Your task to perform on an android device: Go to Yahoo.com Image 0: 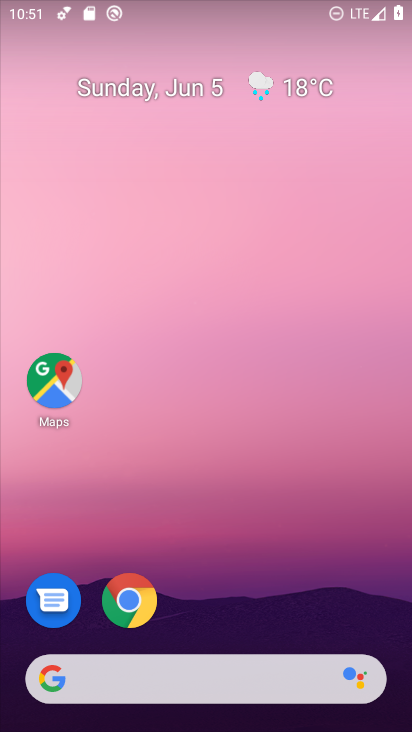
Step 0: click (134, 605)
Your task to perform on an android device: Go to Yahoo.com Image 1: 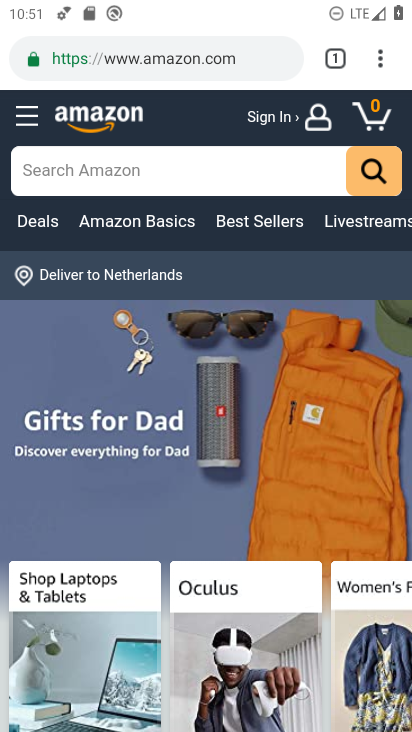
Step 1: click (335, 60)
Your task to perform on an android device: Go to Yahoo.com Image 2: 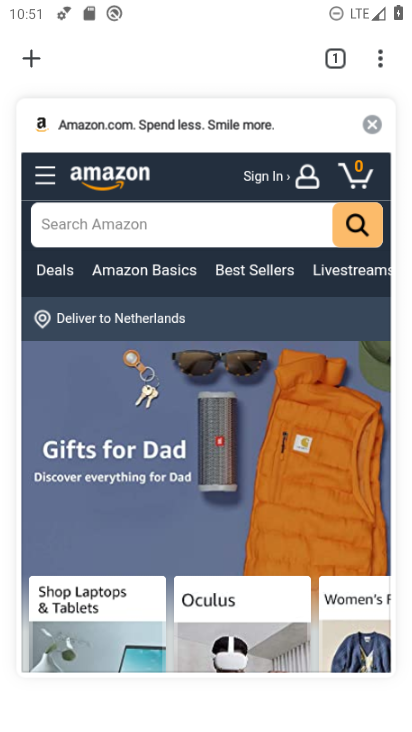
Step 2: click (42, 52)
Your task to perform on an android device: Go to Yahoo.com Image 3: 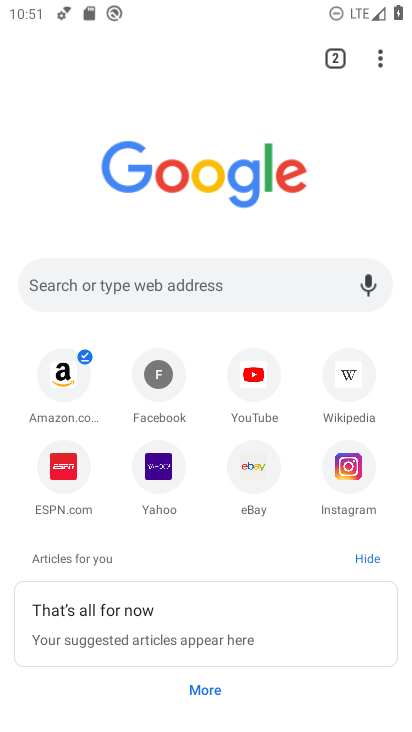
Step 3: click (169, 476)
Your task to perform on an android device: Go to Yahoo.com Image 4: 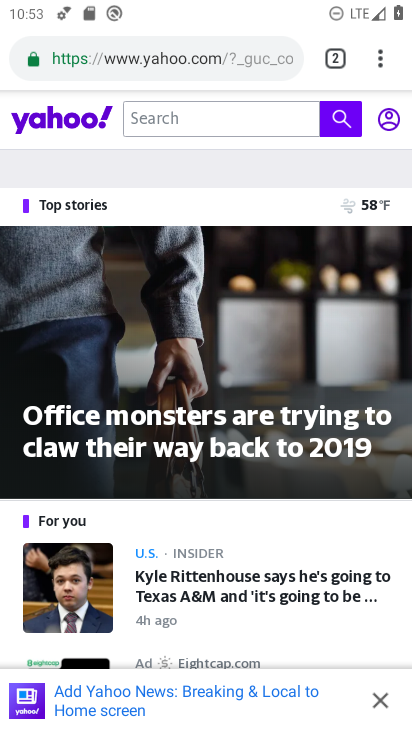
Step 4: task complete